Your task to perform on an android device: star an email in the gmail app Image 0: 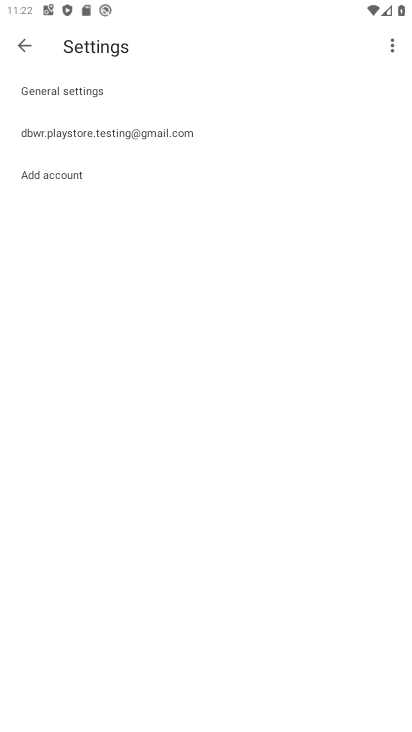
Step 0: press home button
Your task to perform on an android device: star an email in the gmail app Image 1: 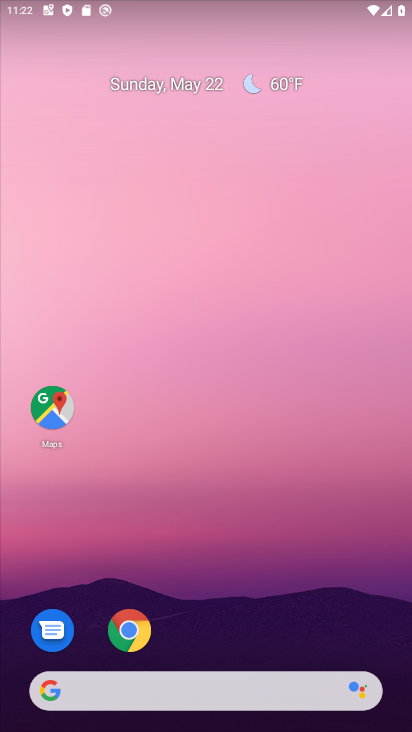
Step 1: drag from (229, 612) to (203, 110)
Your task to perform on an android device: star an email in the gmail app Image 2: 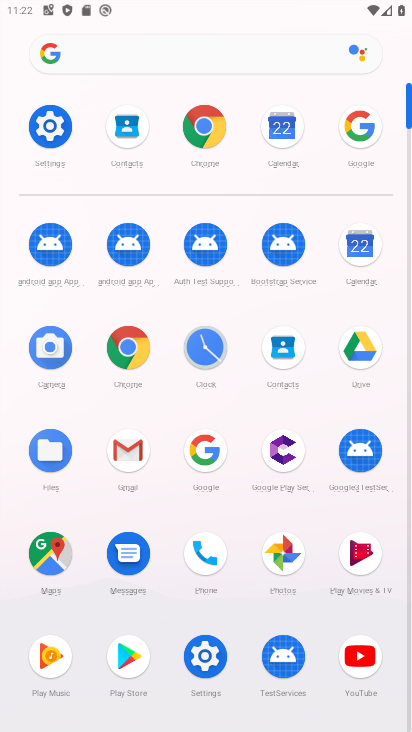
Step 2: click (125, 449)
Your task to perform on an android device: star an email in the gmail app Image 3: 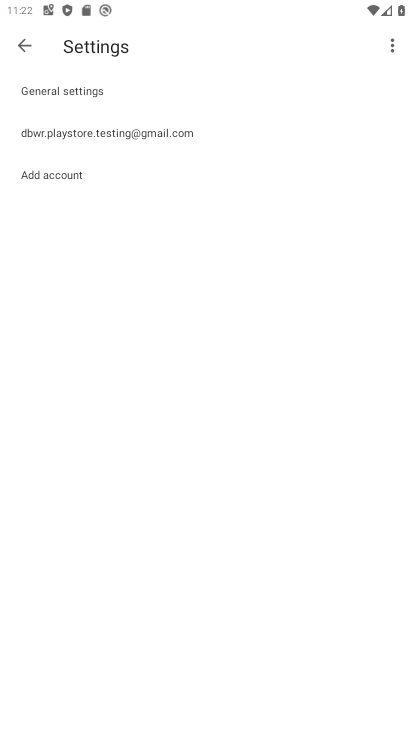
Step 3: click (28, 45)
Your task to perform on an android device: star an email in the gmail app Image 4: 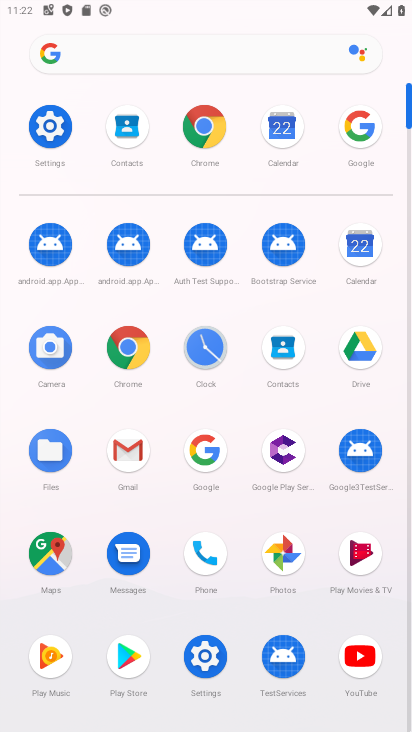
Step 4: click (126, 446)
Your task to perform on an android device: star an email in the gmail app Image 5: 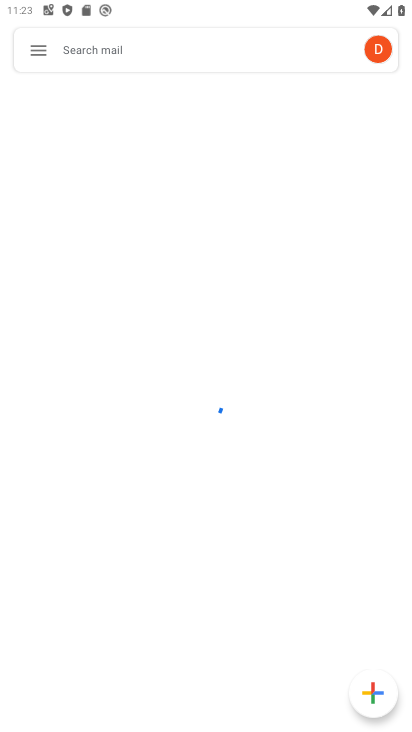
Step 5: click (33, 43)
Your task to perform on an android device: star an email in the gmail app Image 6: 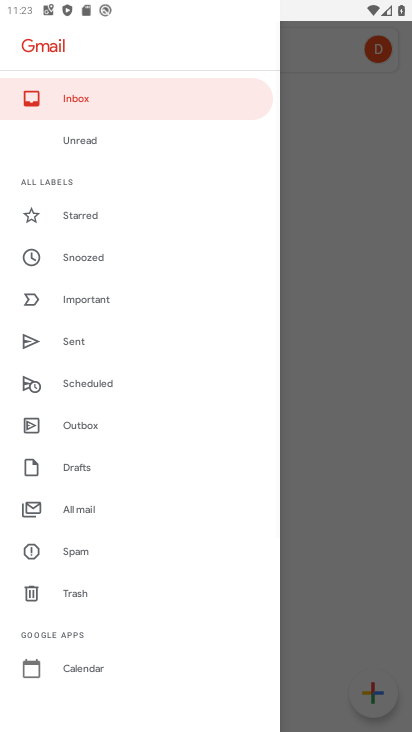
Step 6: click (53, 107)
Your task to perform on an android device: star an email in the gmail app Image 7: 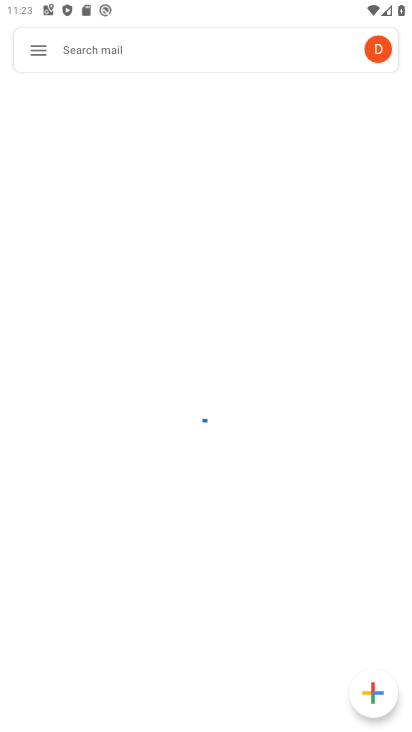
Step 7: click (32, 49)
Your task to perform on an android device: star an email in the gmail app Image 8: 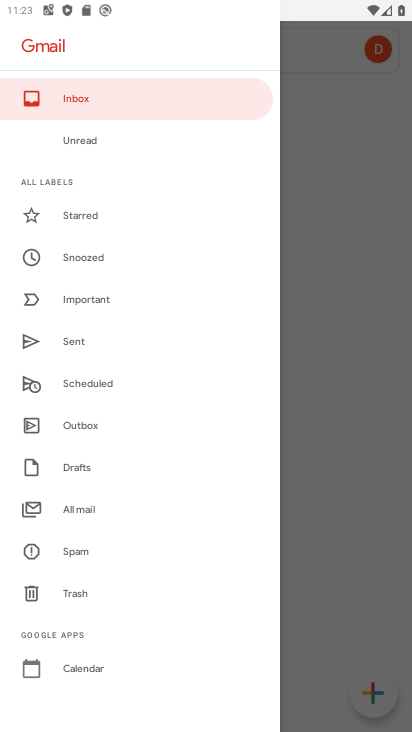
Step 8: click (95, 507)
Your task to perform on an android device: star an email in the gmail app Image 9: 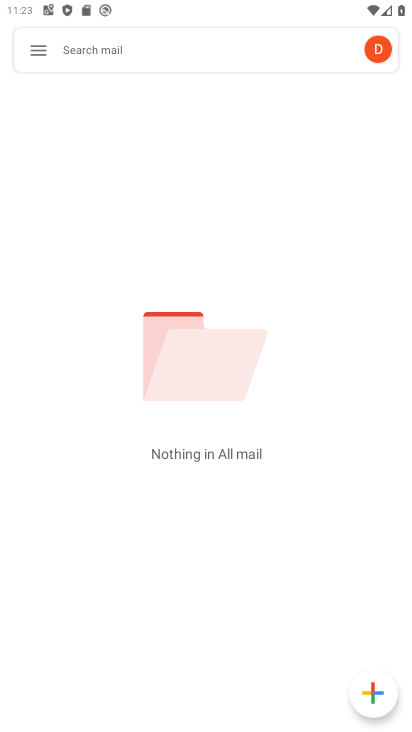
Step 9: task complete